Your task to perform on an android device: Show the shopping cart on costco.com. Search for panasonic triple a on costco.com, select the first entry, and add it to the cart. Image 0: 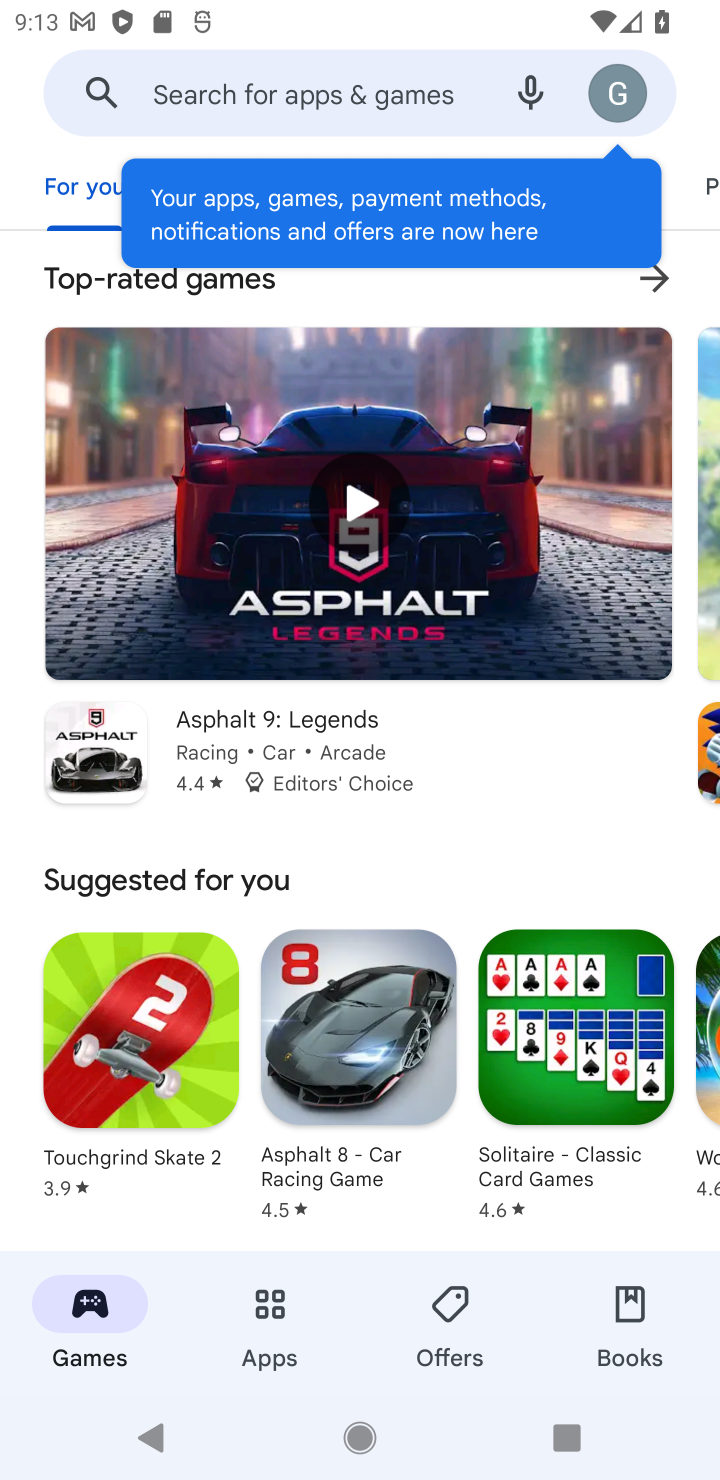
Step 0: press home button
Your task to perform on an android device: Show the shopping cart on costco.com. Search for panasonic triple a on costco.com, select the first entry, and add it to the cart. Image 1: 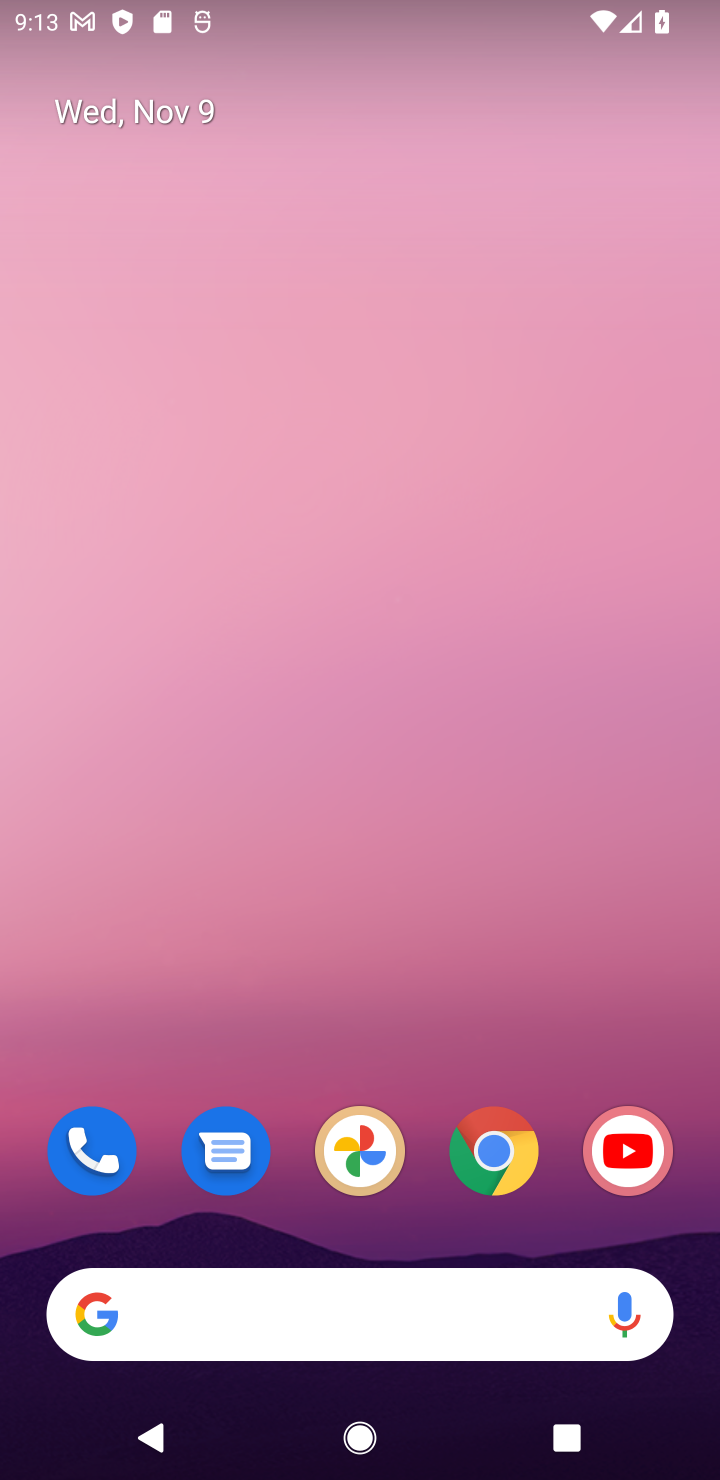
Step 1: click (504, 1172)
Your task to perform on an android device: Show the shopping cart on costco.com. Search for panasonic triple a on costco.com, select the first entry, and add it to the cart. Image 2: 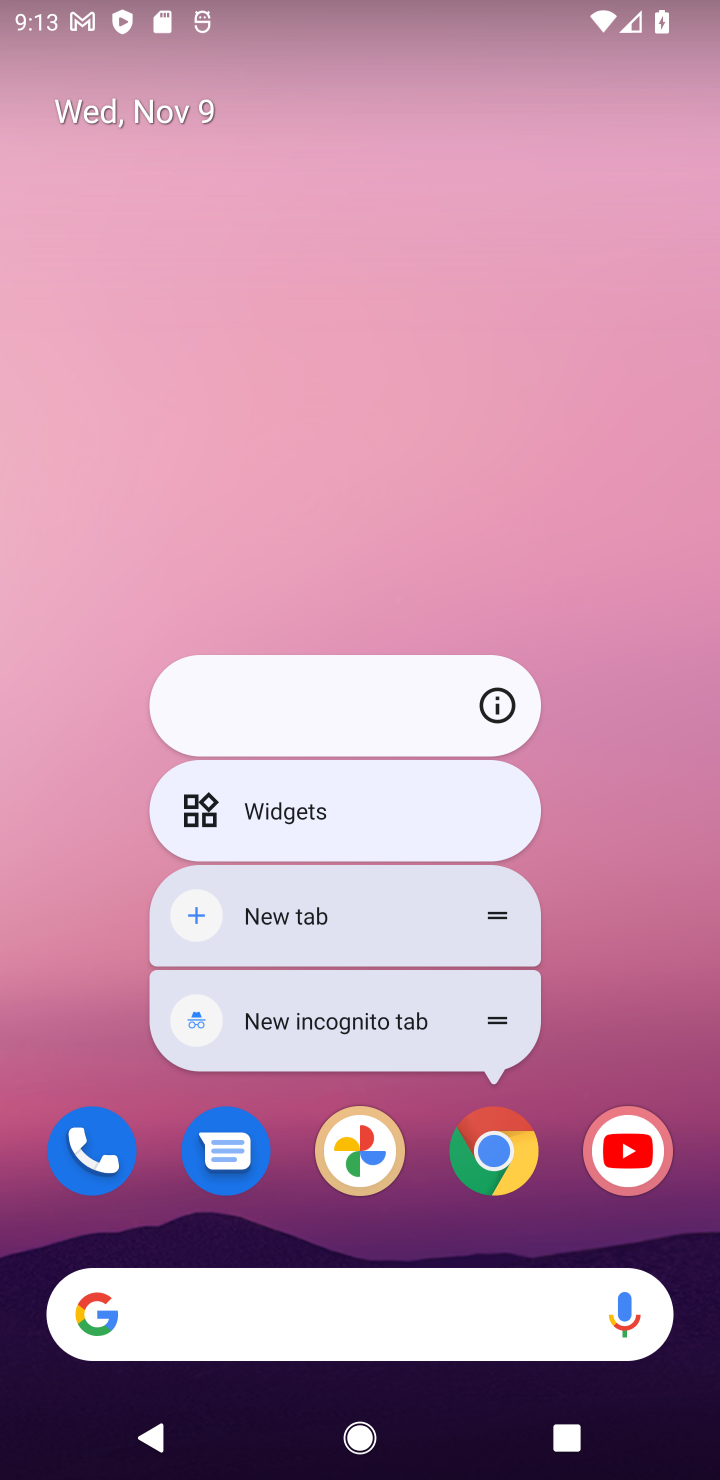
Step 2: click (502, 1163)
Your task to perform on an android device: Show the shopping cart on costco.com. Search for panasonic triple a on costco.com, select the first entry, and add it to the cart. Image 3: 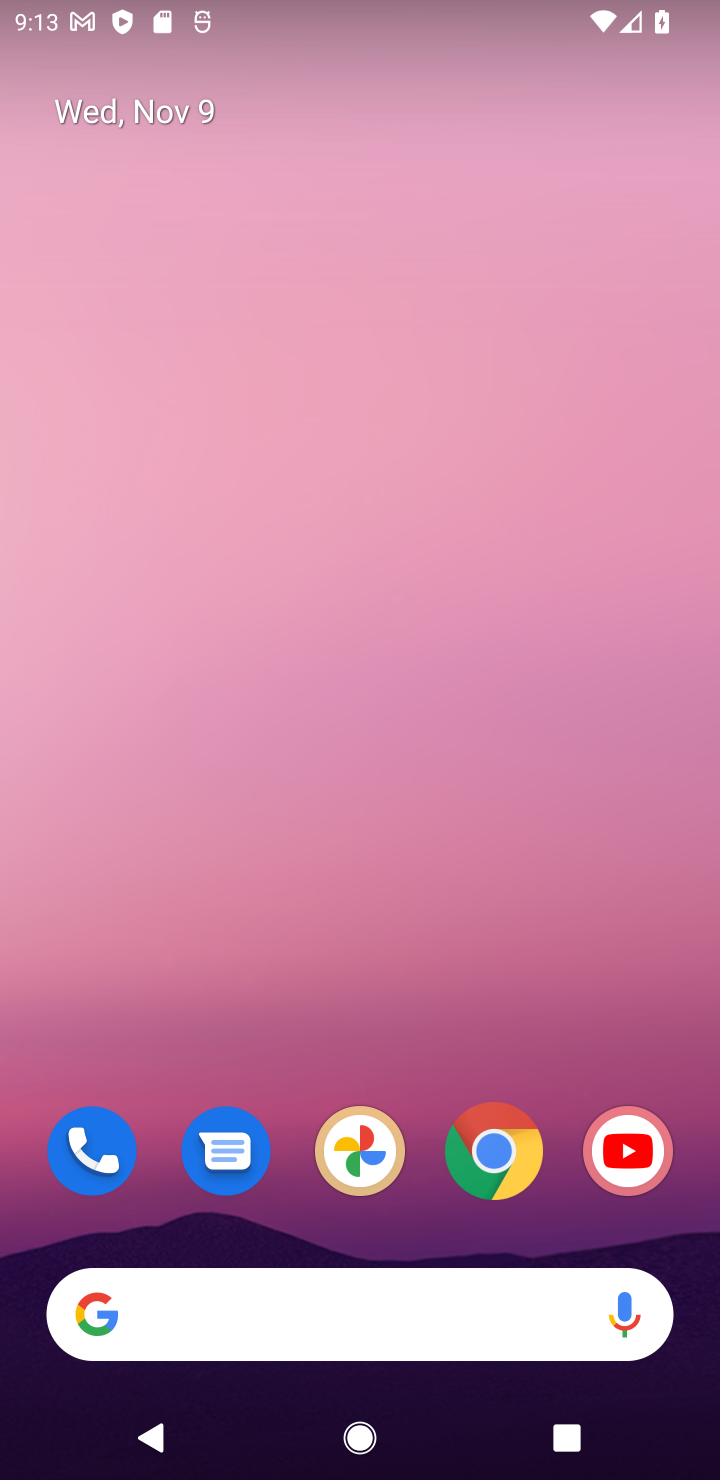
Step 3: click (502, 1163)
Your task to perform on an android device: Show the shopping cart on costco.com. Search for panasonic triple a on costco.com, select the first entry, and add it to the cart. Image 4: 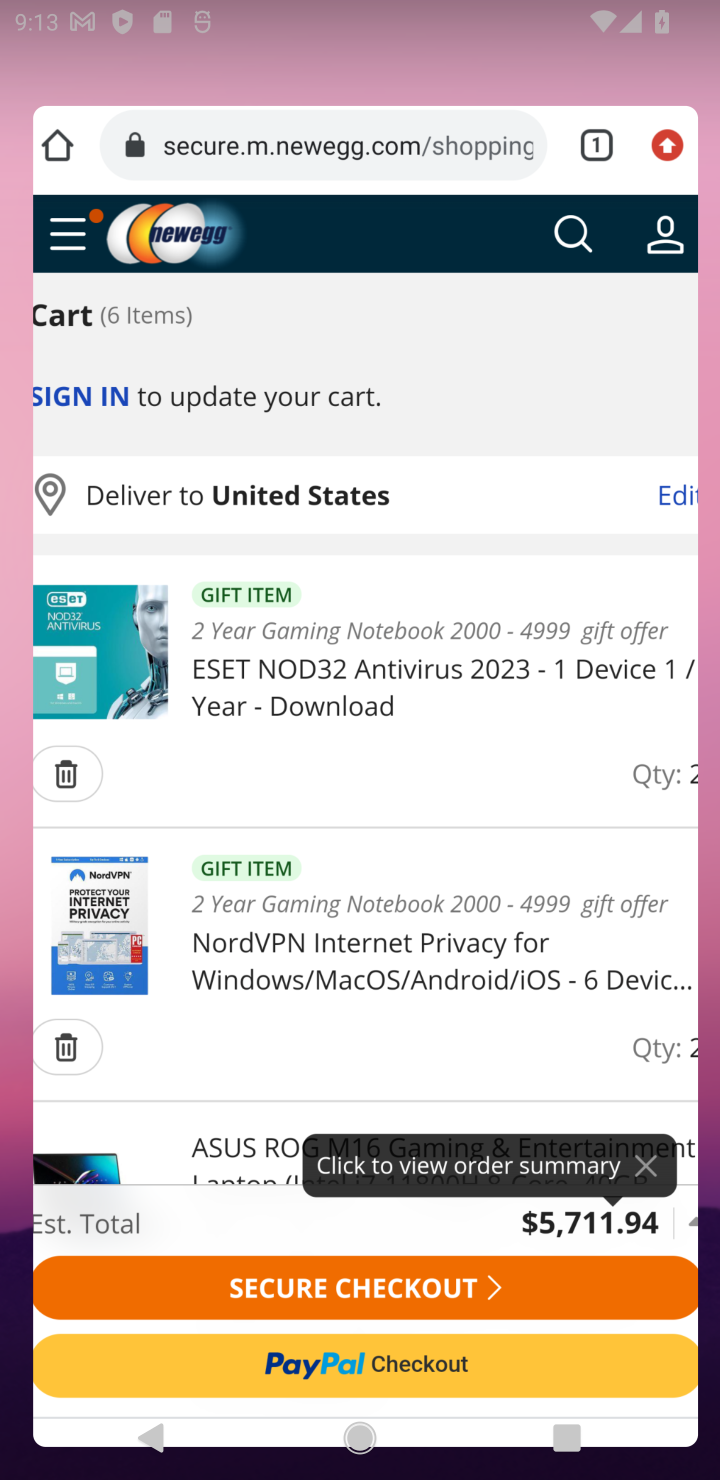
Step 4: click (502, 1162)
Your task to perform on an android device: Show the shopping cart on costco.com. Search for panasonic triple a on costco.com, select the first entry, and add it to the cart. Image 5: 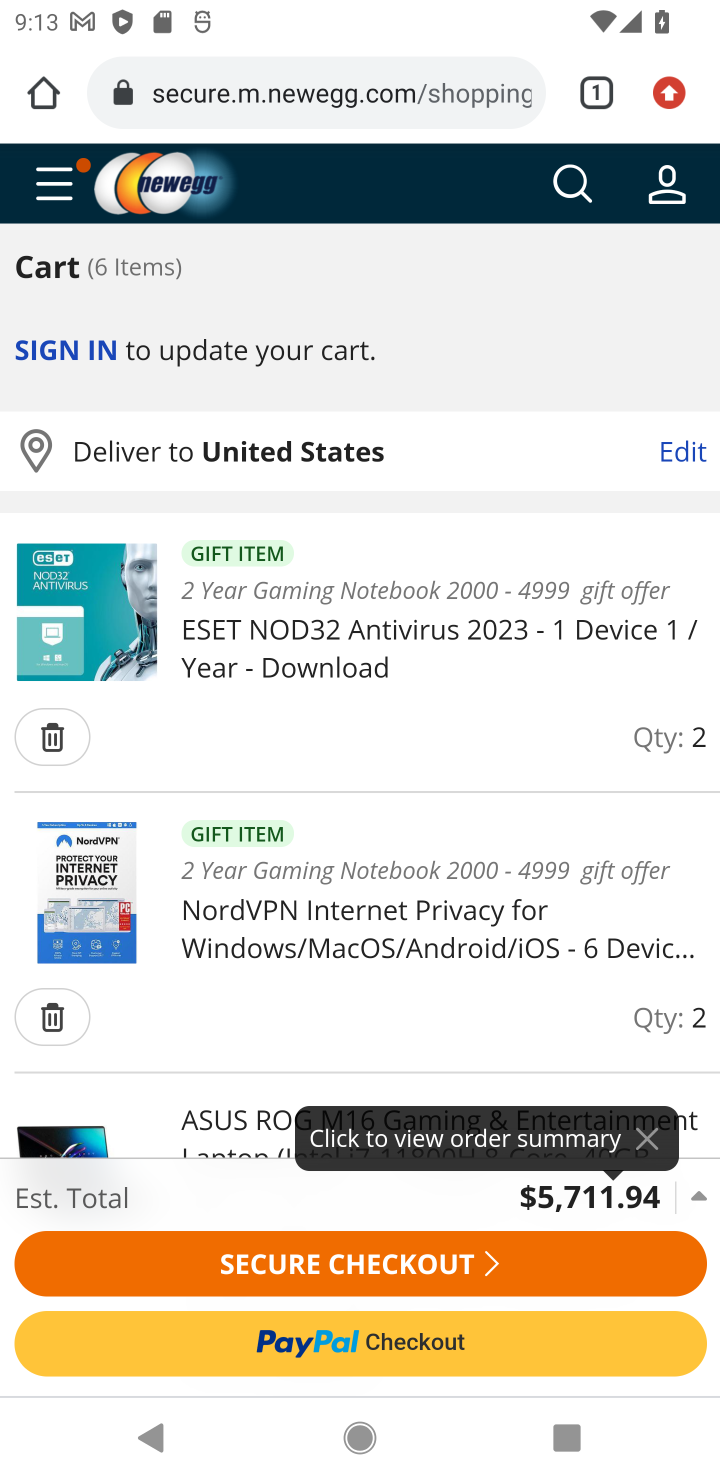
Step 5: click (278, 122)
Your task to perform on an android device: Show the shopping cart on costco.com. Search for panasonic triple a on costco.com, select the first entry, and add it to the cart. Image 6: 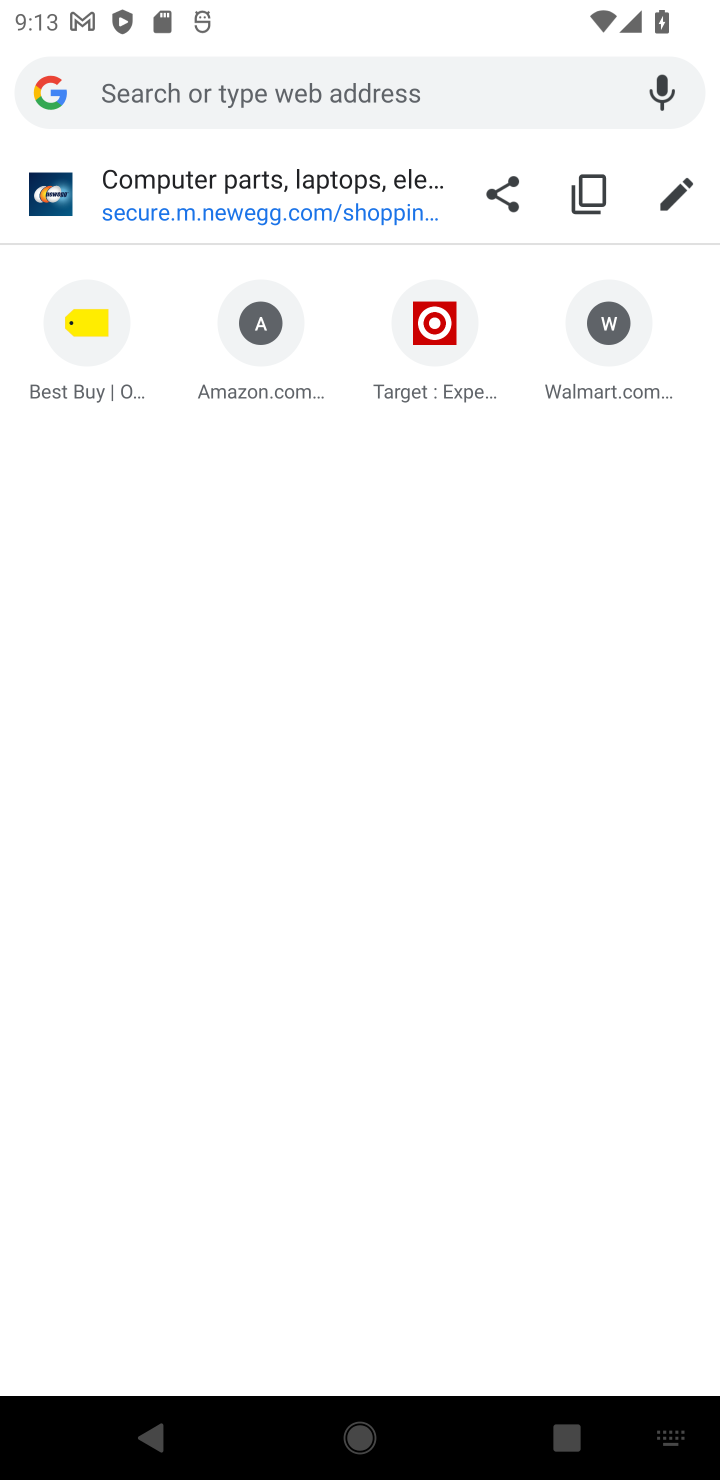
Step 6: type "costco.com"
Your task to perform on an android device: Show the shopping cart on costco.com. Search for panasonic triple a on costco.com, select the first entry, and add it to the cart. Image 7: 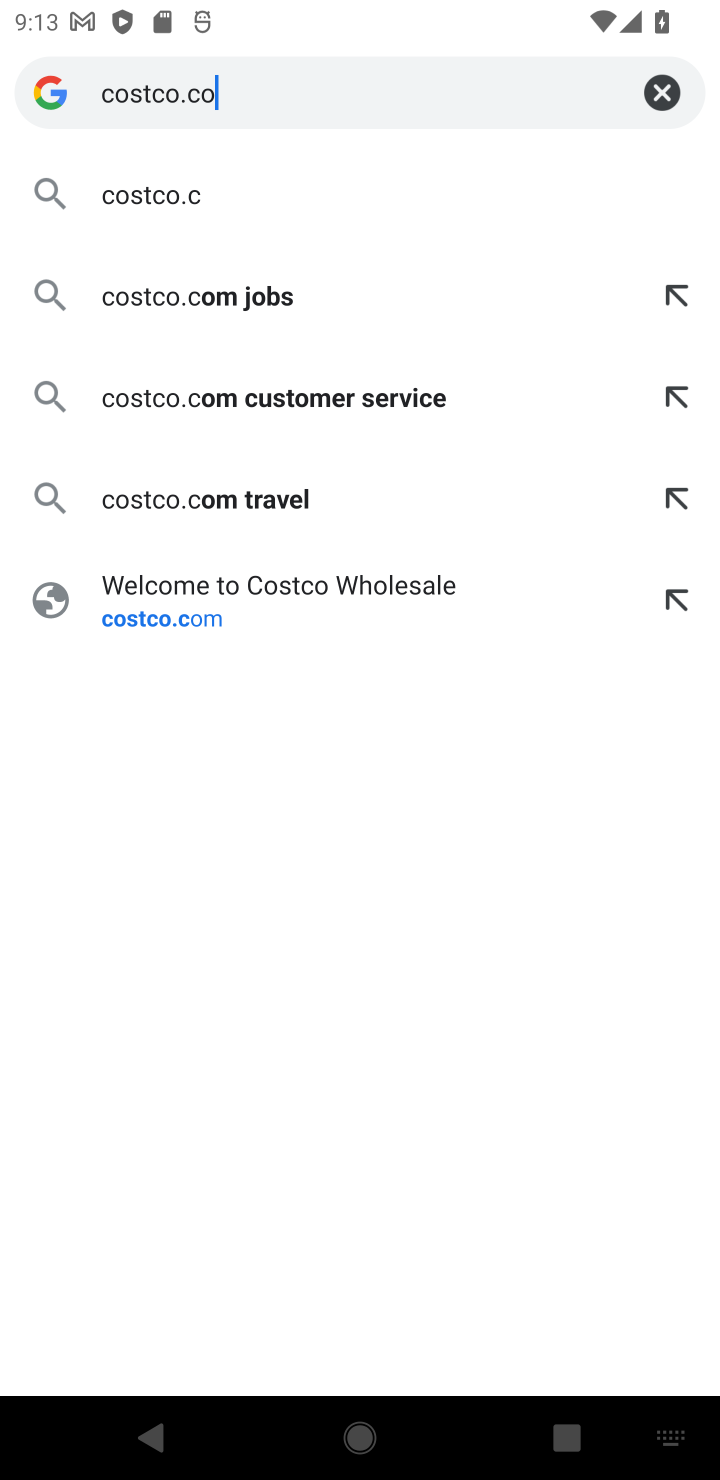
Step 7: press enter
Your task to perform on an android device: Show the shopping cart on costco.com. Search for panasonic triple a on costco.com, select the first entry, and add it to the cart. Image 8: 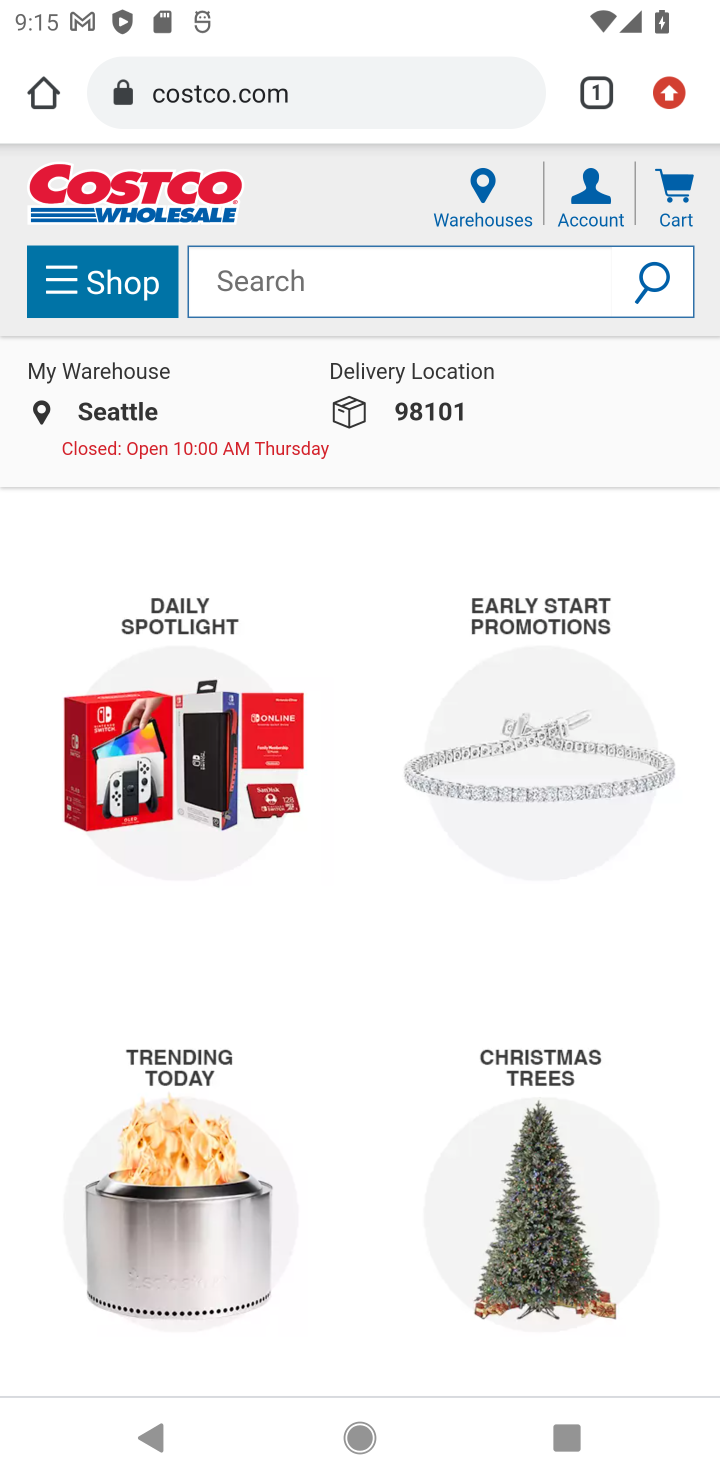
Step 8: click (685, 208)
Your task to perform on an android device: Show the shopping cart on costco.com. Search for panasonic triple a on costco.com, select the first entry, and add it to the cart. Image 9: 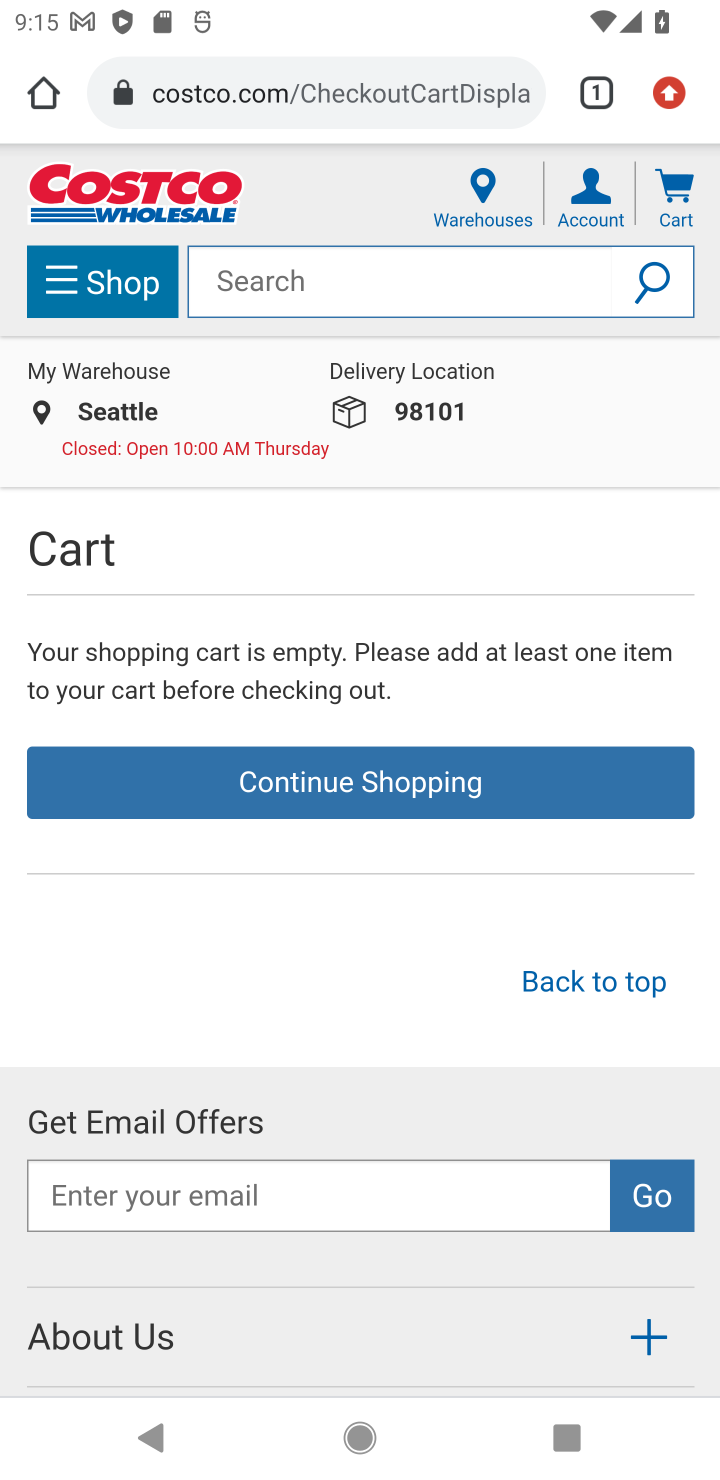
Step 9: click (385, 301)
Your task to perform on an android device: Show the shopping cart on costco.com. Search for panasonic triple a on costco.com, select the first entry, and add it to the cart. Image 10: 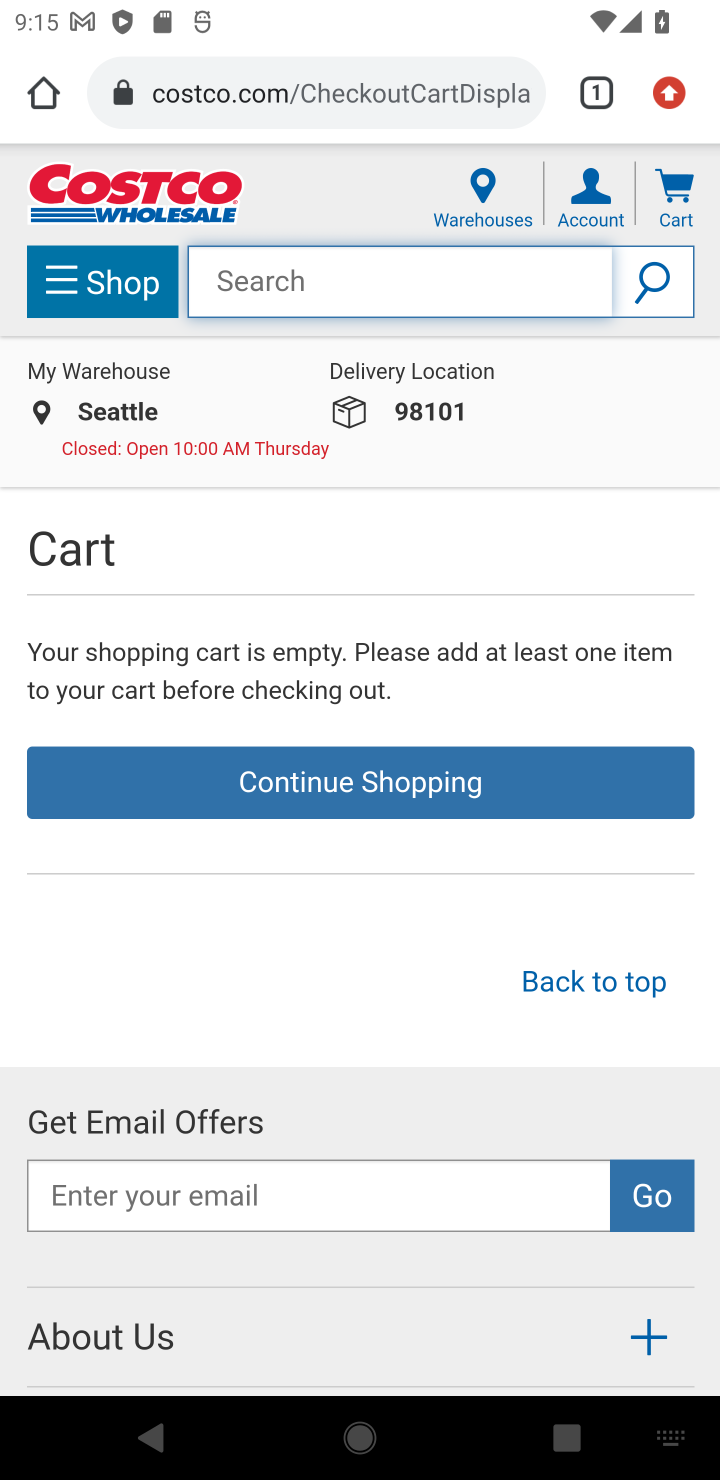
Step 10: type "panasonic triple a"
Your task to perform on an android device: Show the shopping cart on costco.com. Search for panasonic triple a on costco.com, select the first entry, and add it to the cart. Image 11: 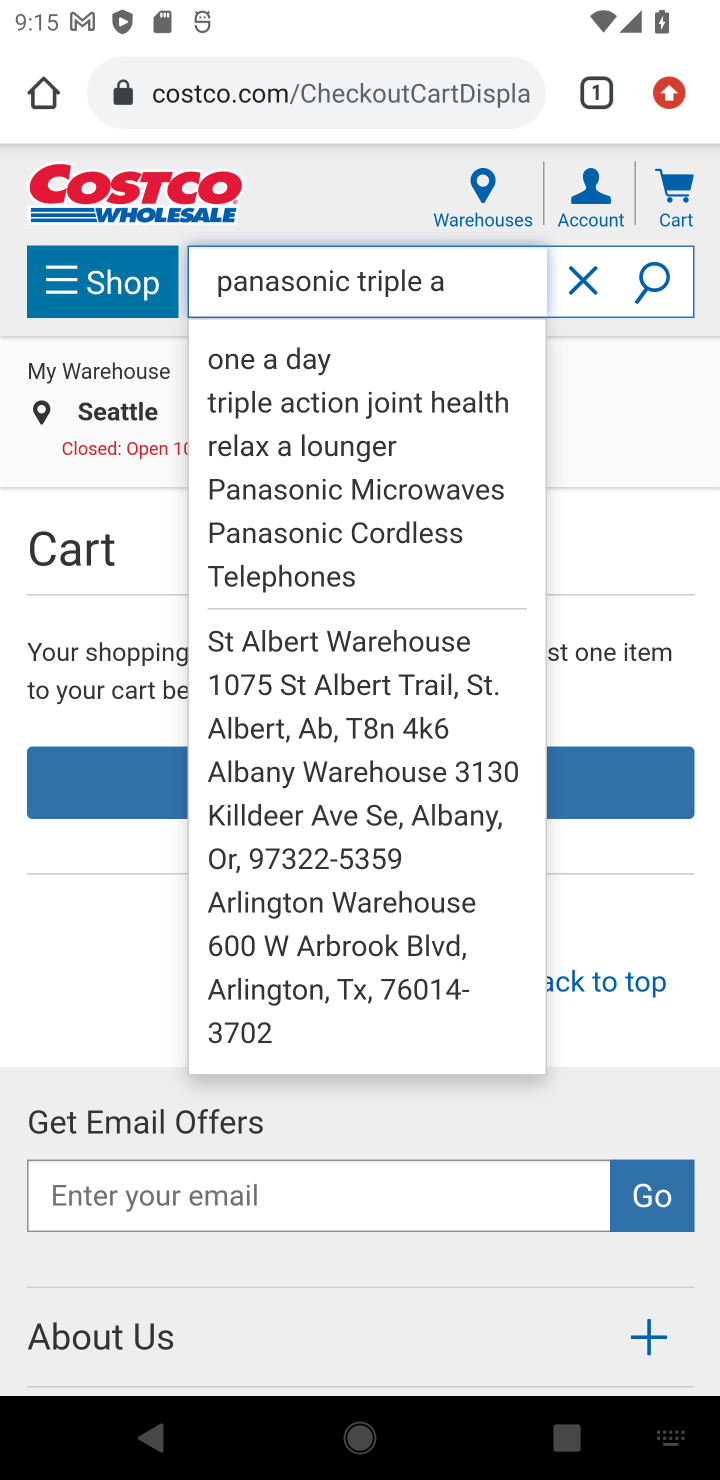
Step 11: press enter
Your task to perform on an android device: Show the shopping cart on costco.com. Search for panasonic triple a on costco.com, select the first entry, and add it to the cart. Image 12: 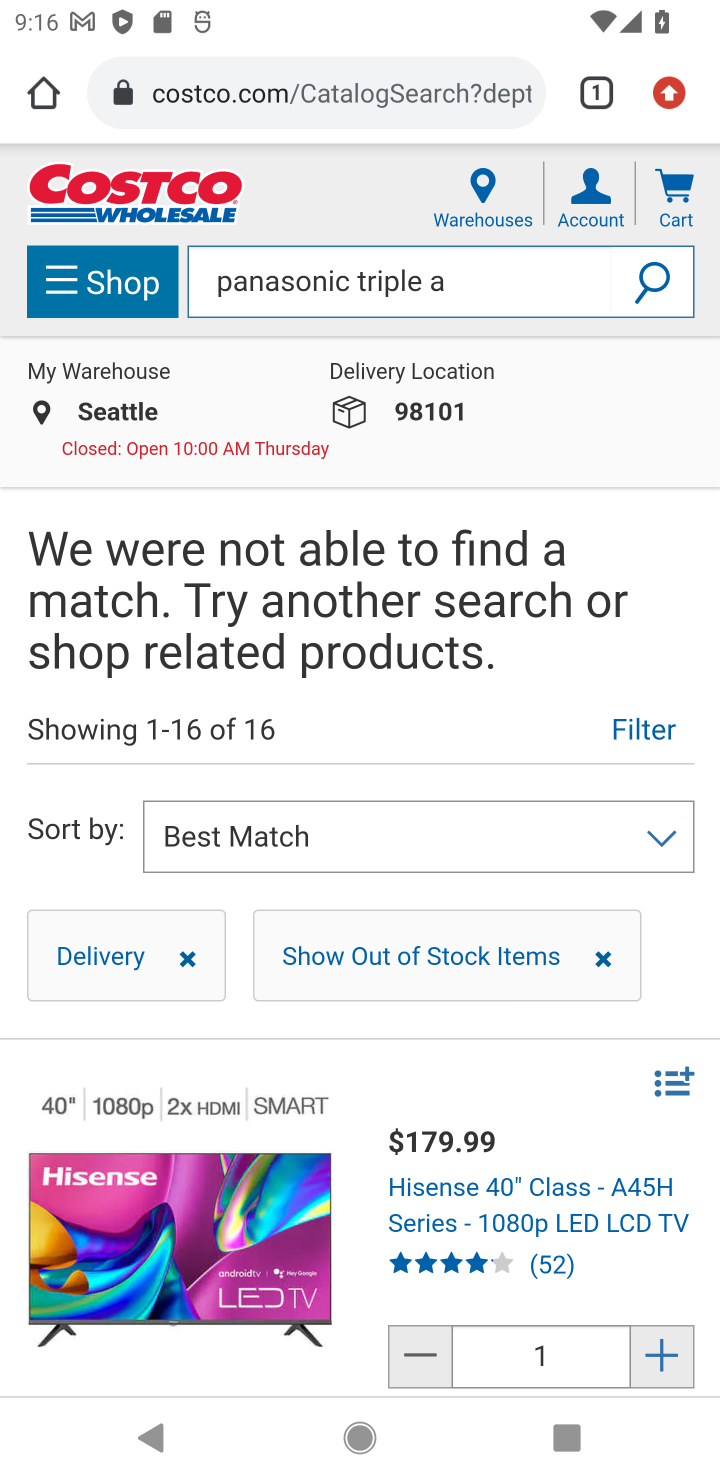
Step 12: click (319, 1203)
Your task to perform on an android device: Show the shopping cart on costco.com. Search for panasonic triple a on costco.com, select the first entry, and add it to the cart. Image 13: 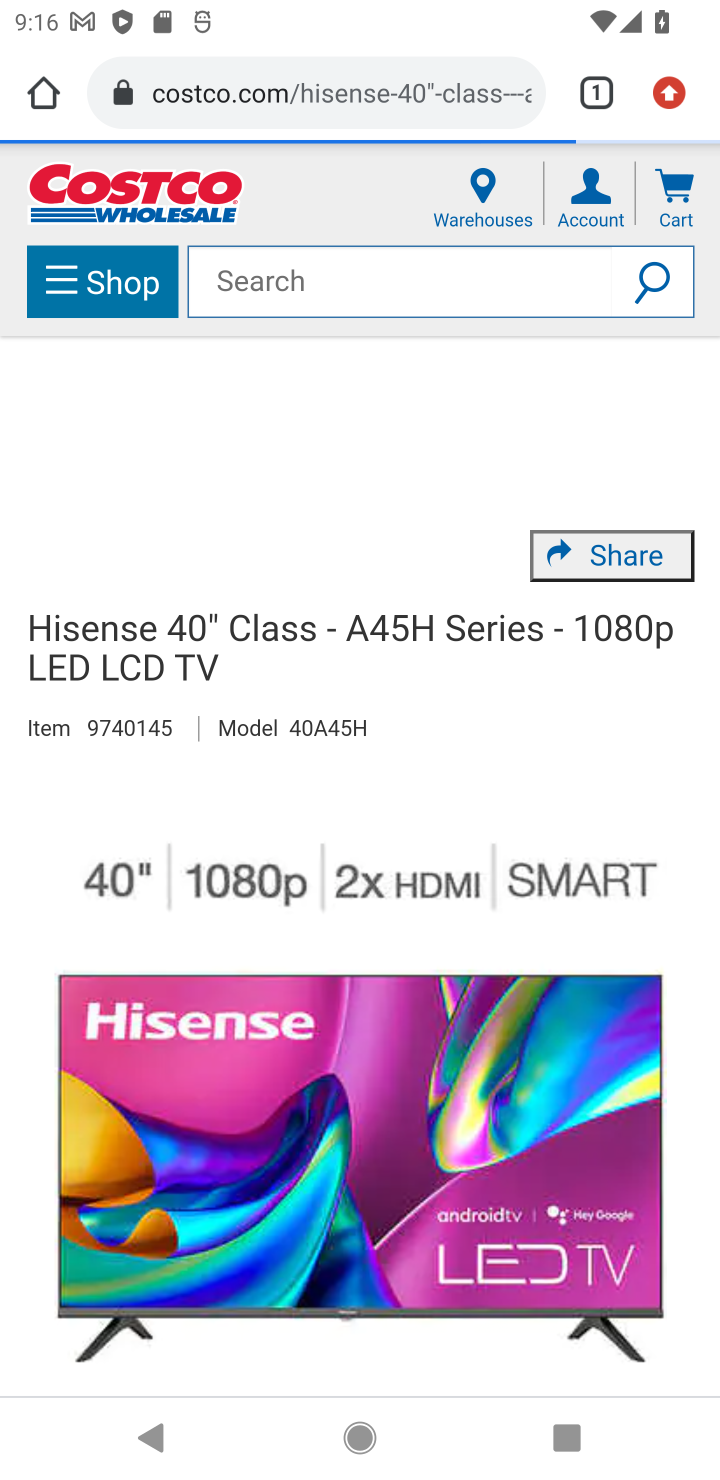
Step 13: drag from (386, 1014) to (432, 403)
Your task to perform on an android device: Show the shopping cart on costco.com. Search for panasonic triple a on costco.com, select the first entry, and add it to the cart. Image 14: 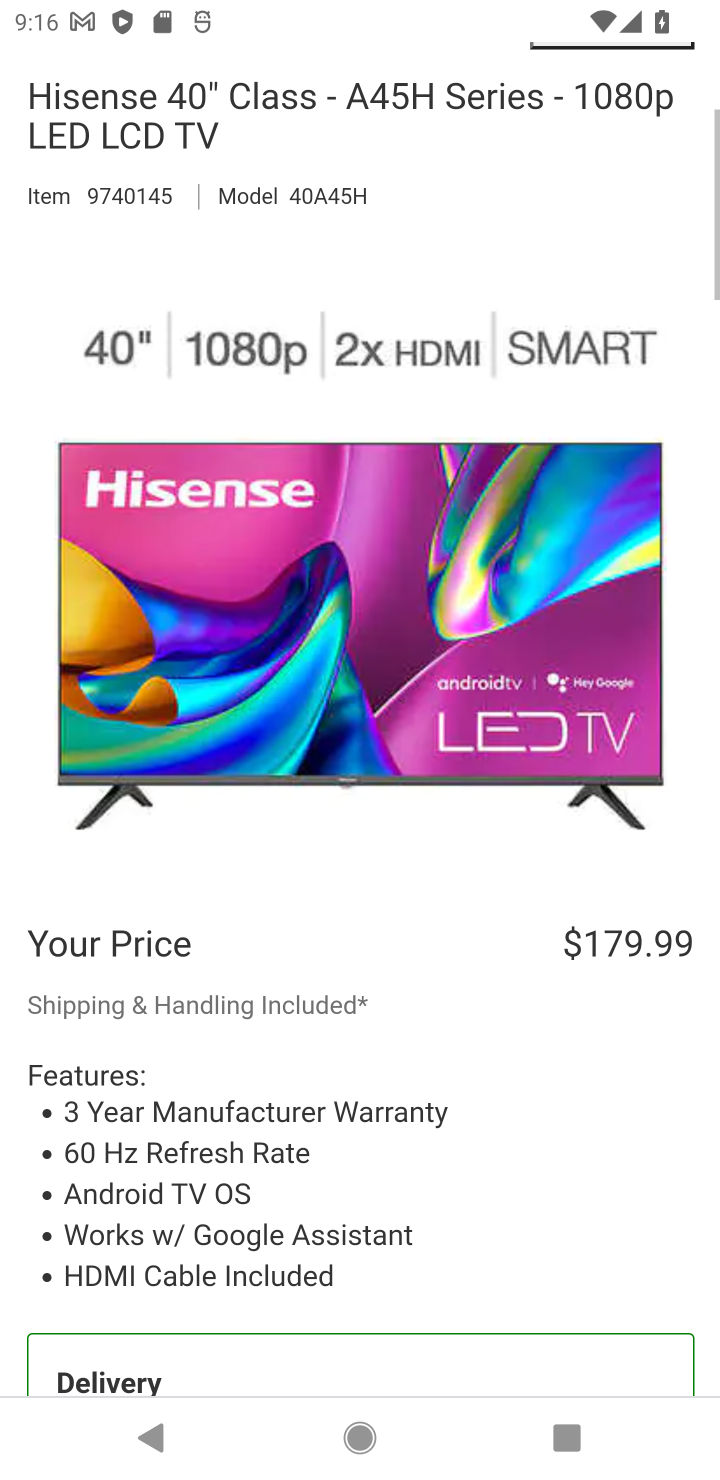
Step 14: drag from (226, 1222) to (335, 451)
Your task to perform on an android device: Show the shopping cart on costco.com. Search for panasonic triple a on costco.com, select the first entry, and add it to the cart. Image 15: 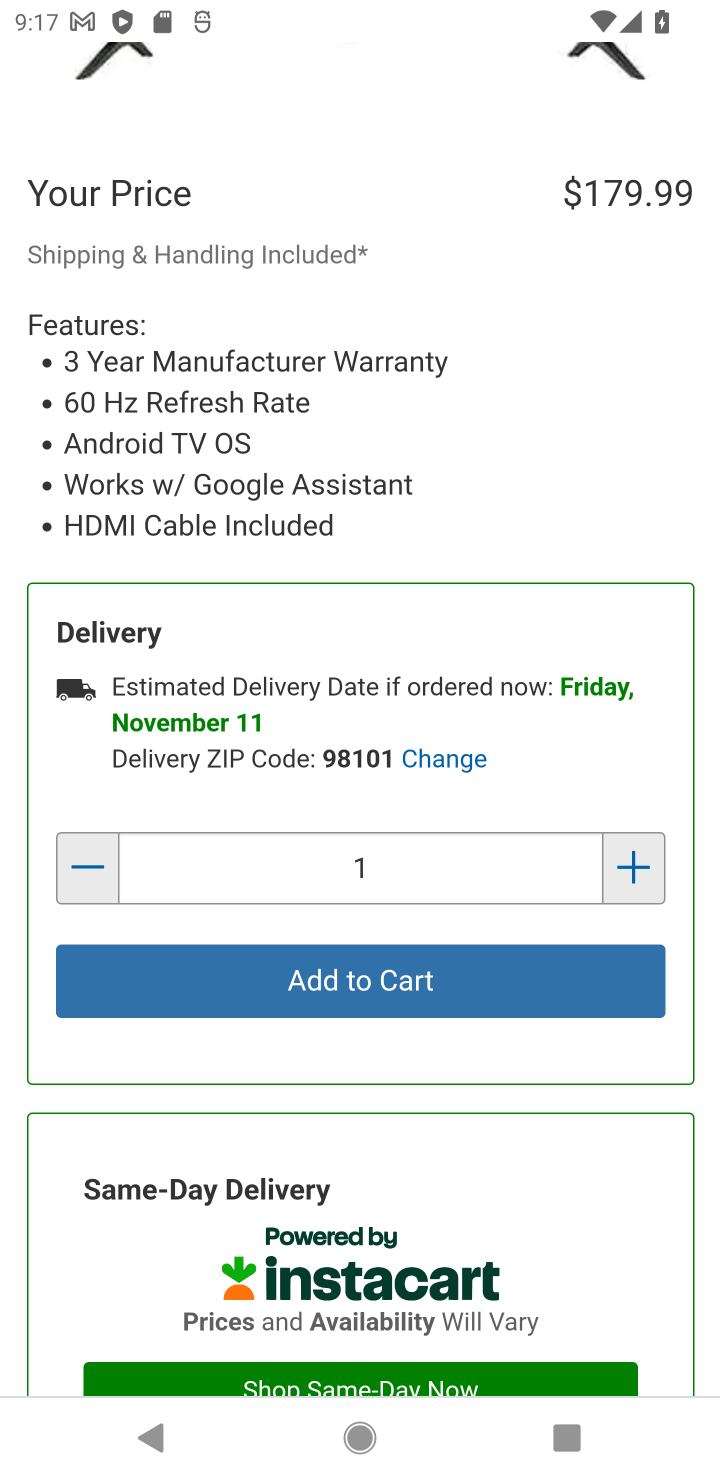
Step 15: click (301, 994)
Your task to perform on an android device: Show the shopping cart on costco.com. Search for panasonic triple a on costco.com, select the first entry, and add it to the cart. Image 16: 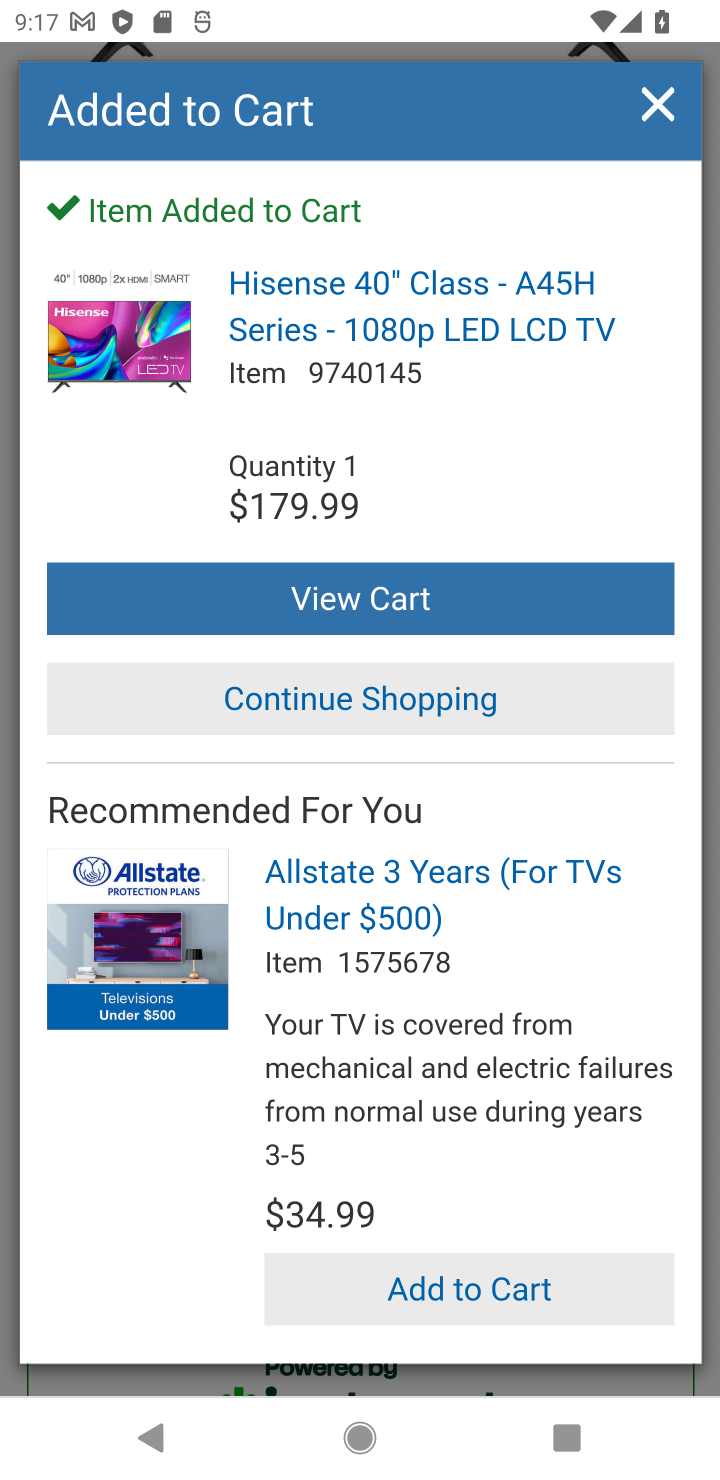
Step 16: click (387, 593)
Your task to perform on an android device: Show the shopping cart on costco.com. Search for panasonic triple a on costco.com, select the first entry, and add it to the cart. Image 17: 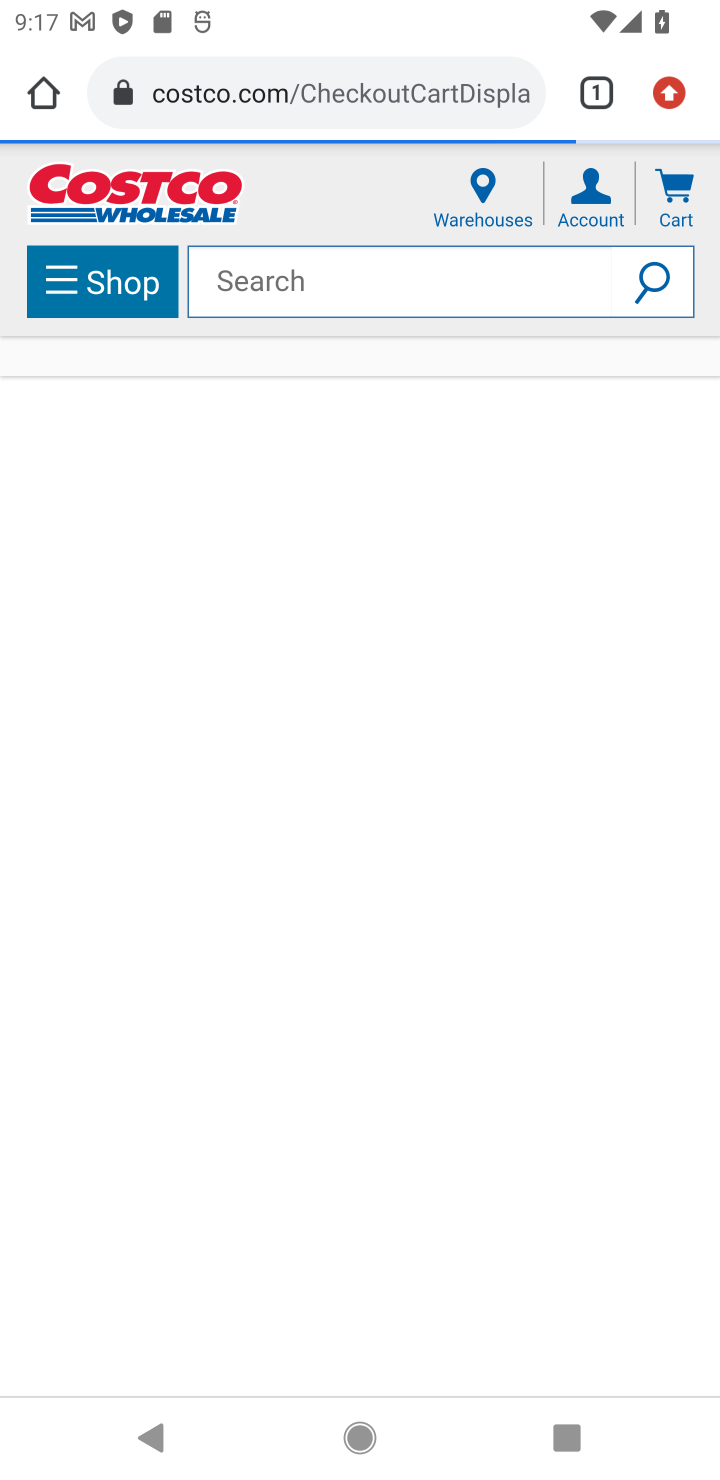
Step 17: task complete